Your task to perform on an android device: toggle translation in the chrome app Image 0: 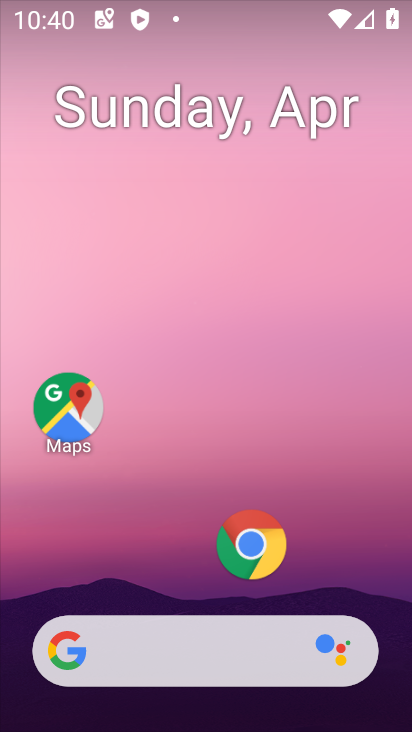
Step 0: click (246, 557)
Your task to perform on an android device: toggle translation in the chrome app Image 1: 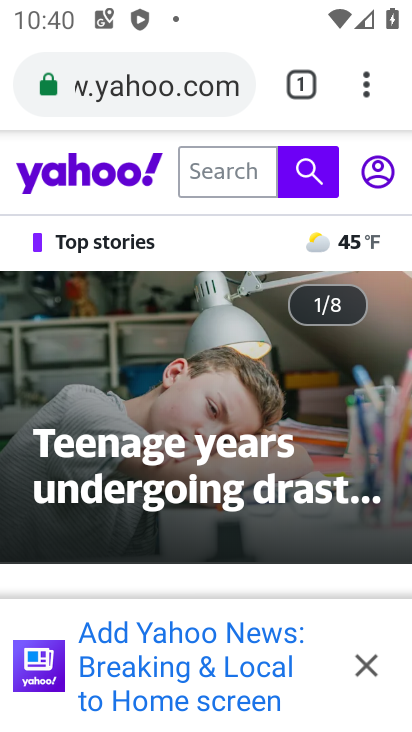
Step 1: drag from (372, 81) to (133, 606)
Your task to perform on an android device: toggle translation in the chrome app Image 2: 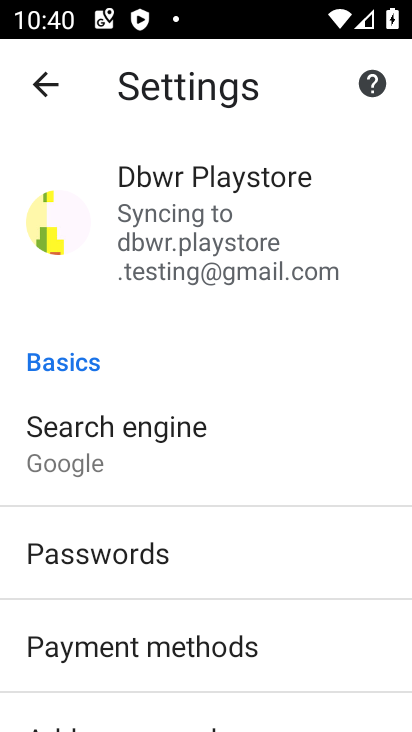
Step 2: drag from (217, 636) to (269, 326)
Your task to perform on an android device: toggle translation in the chrome app Image 3: 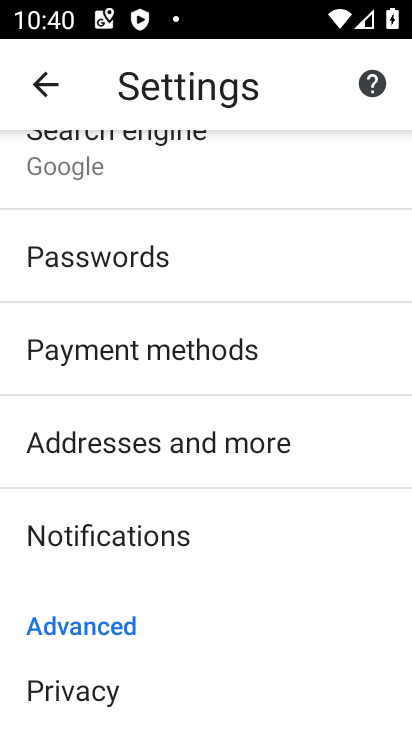
Step 3: drag from (264, 515) to (278, 307)
Your task to perform on an android device: toggle translation in the chrome app Image 4: 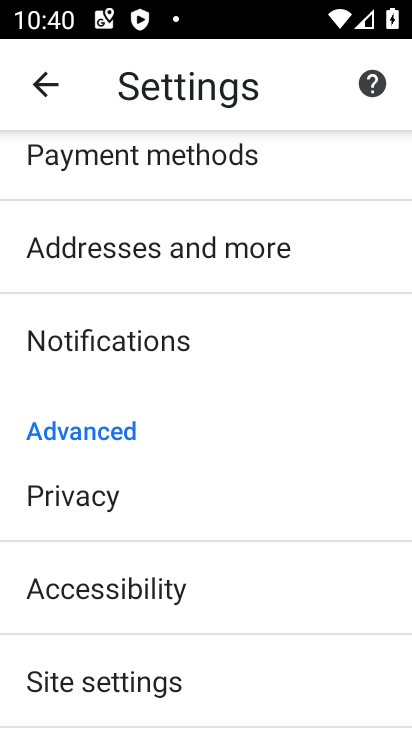
Step 4: drag from (186, 669) to (225, 456)
Your task to perform on an android device: toggle translation in the chrome app Image 5: 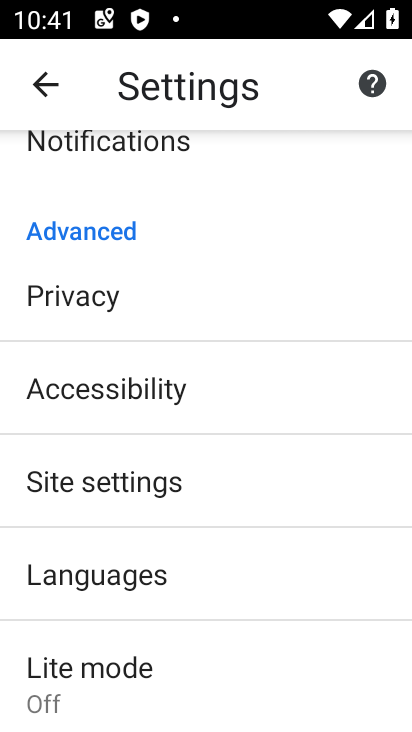
Step 5: click (103, 565)
Your task to perform on an android device: toggle translation in the chrome app Image 6: 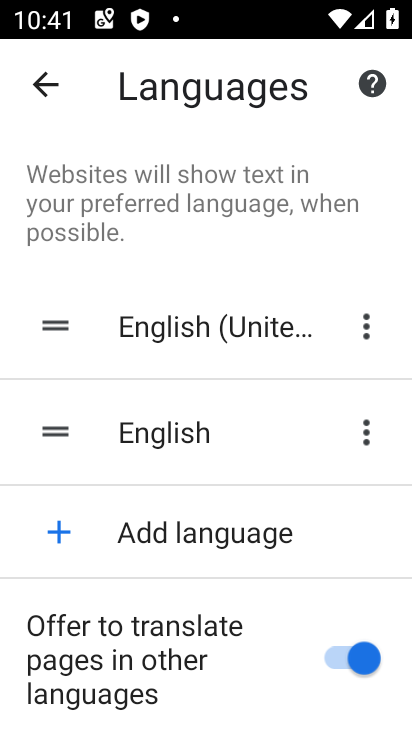
Step 6: click (326, 655)
Your task to perform on an android device: toggle translation in the chrome app Image 7: 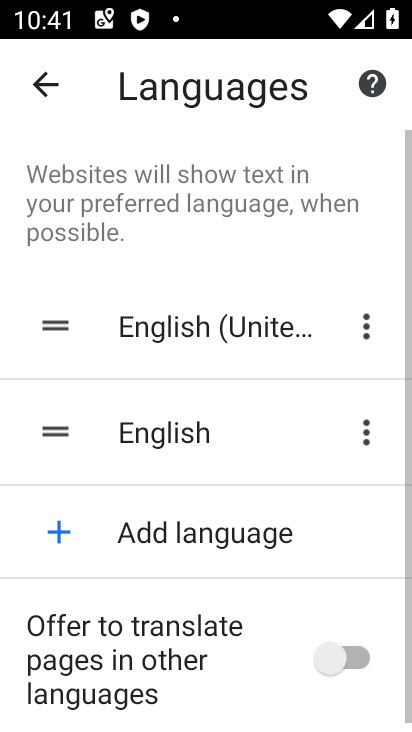
Step 7: task complete